Your task to perform on an android device: toggle wifi Image 0: 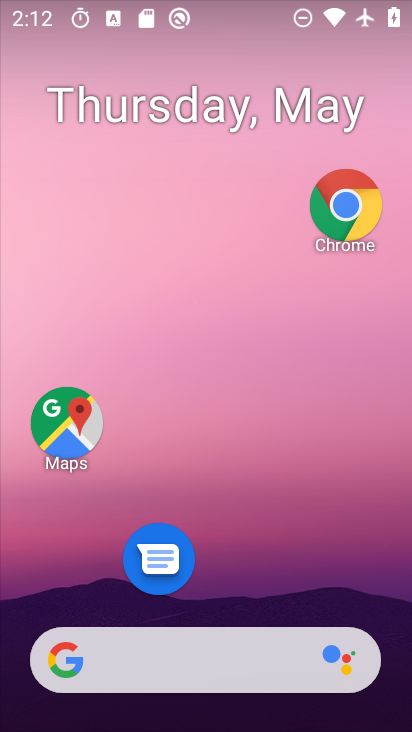
Step 0: drag from (216, 623) to (275, 195)
Your task to perform on an android device: toggle wifi Image 1: 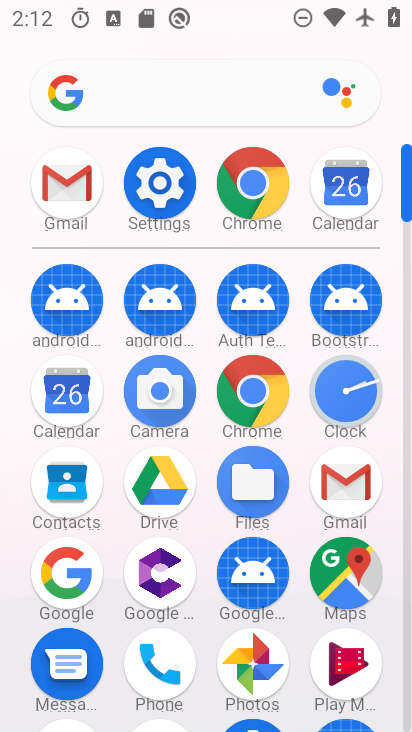
Step 1: click (171, 217)
Your task to perform on an android device: toggle wifi Image 2: 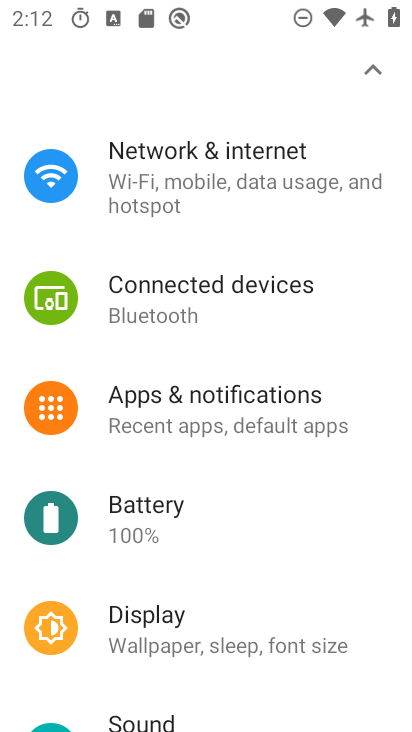
Step 2: drag from (219, 336) to (168, 581)
Your task to perform on an android device: toggle wifi Image 3: 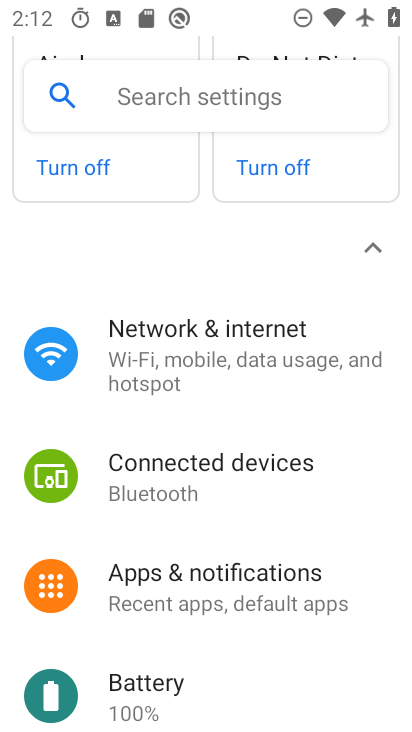
Step 3: click (211, 373)
Your task to perform on an android device: toggle wifi Image 4: 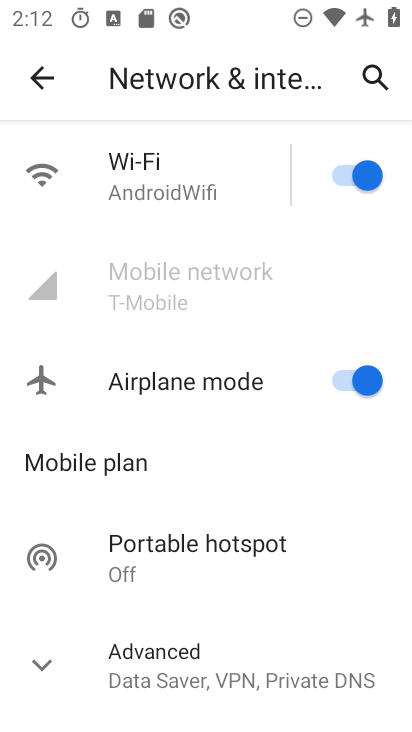
Step 4: click (327, 180)
Your task to perform on an android device: toggle wifi Image 5: 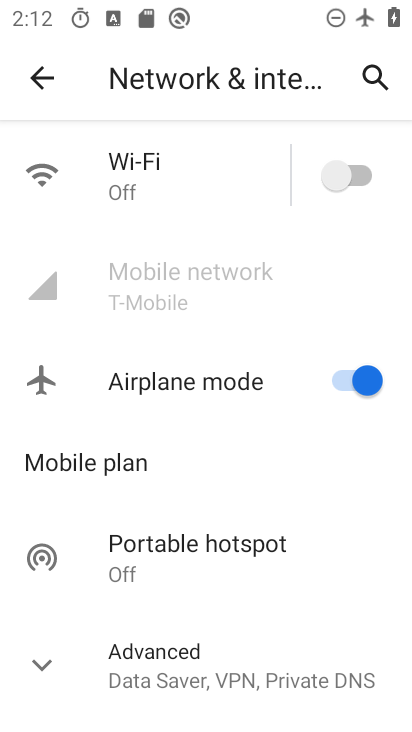
Step 5: task complete